Your task to perform on an android device: change timer sound Image 0: 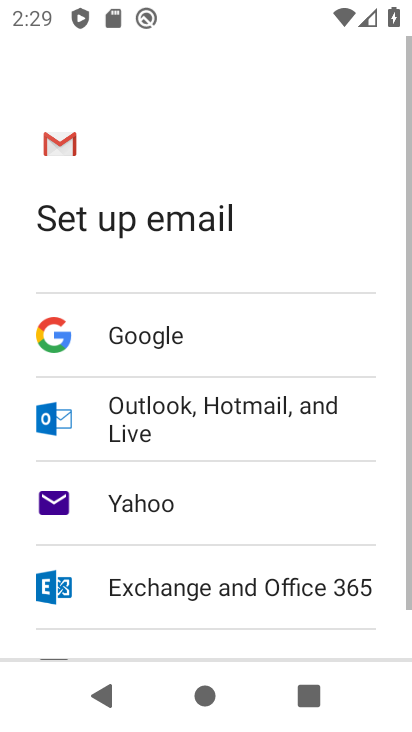
Step 0: press back button
Your task to perform on an android device: change timer sound Image 1: 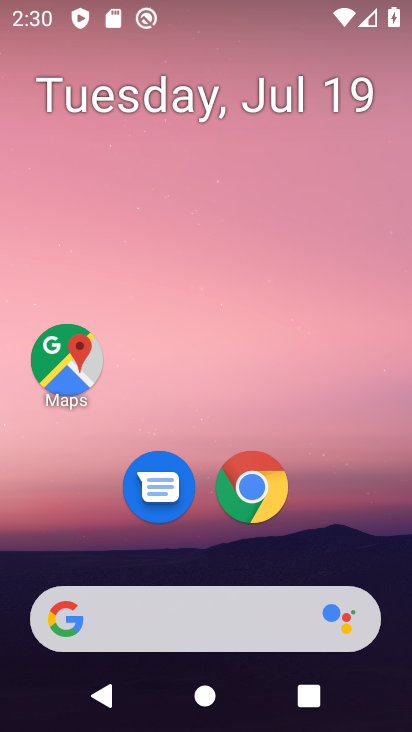
Step 1: drag from (110, 582) to (339, 46)
Your task to perform on an android device: change timer sound Image 2: 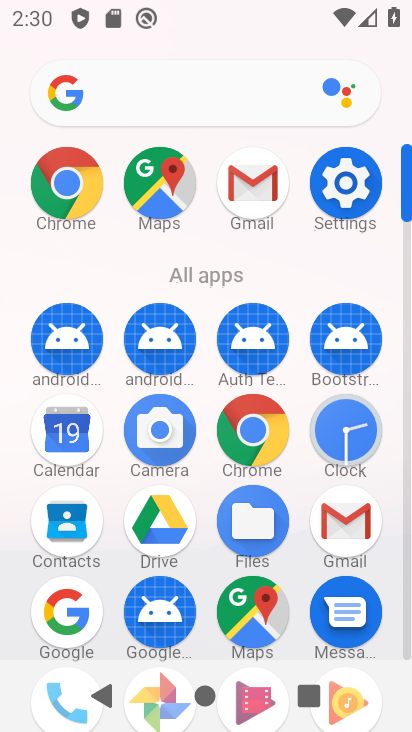
Step 2: click (359, 441)
Your task to perform on an android device: change timer sound Image 3: 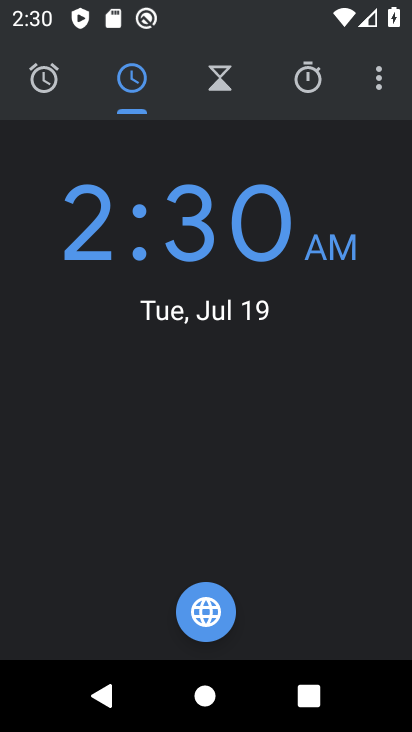
Step 3: click (379, 89)
Your task to perform on an android device: change timer sound Image 4: 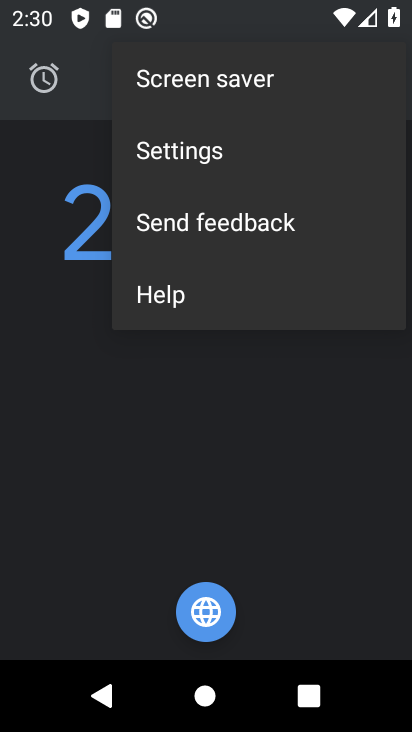
Step 4: click (235, 126)
Your task to perform on an android device: change timer sound Image 5: 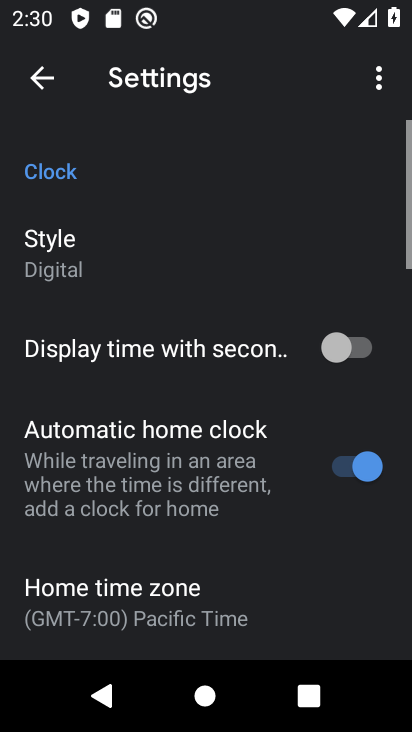
Step 5: drag from (173, 554) to (296, 92)
Your task to perform on an android device: change timer sound Image 6: 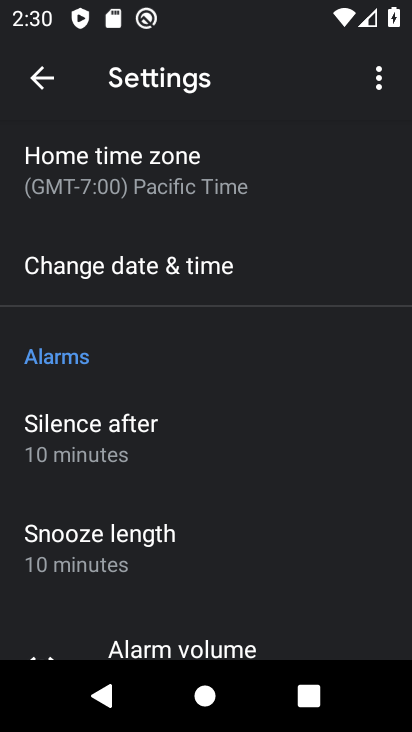
Step 6: drag from (126, 557) to (235, 176)
Your task to perform on an android device: change timer sound Image 7: 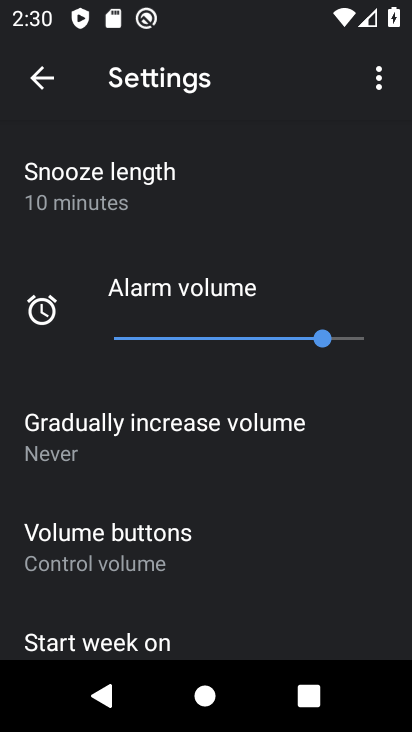
Step 7: drag from (195, 562) to (355, 63)
Your task to perform on an android device: change timer sound Image 8: 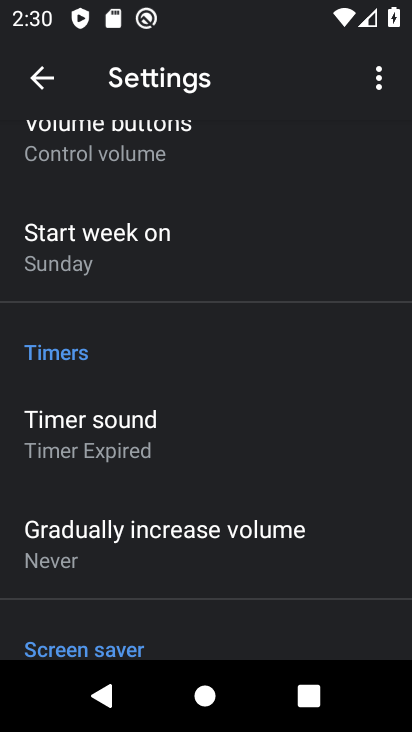
Step 8: click (106, 429)
Your task to perform on an android device: change timer sound Image 9: 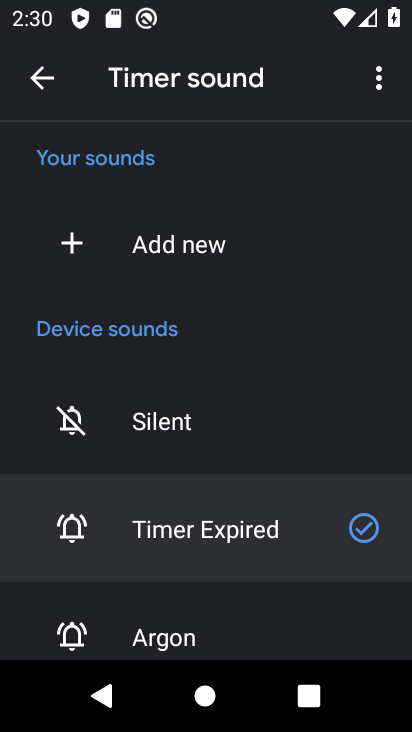
Step 9: click (161, 625)
Your task to perform on an android device: change timer sound Image 10: 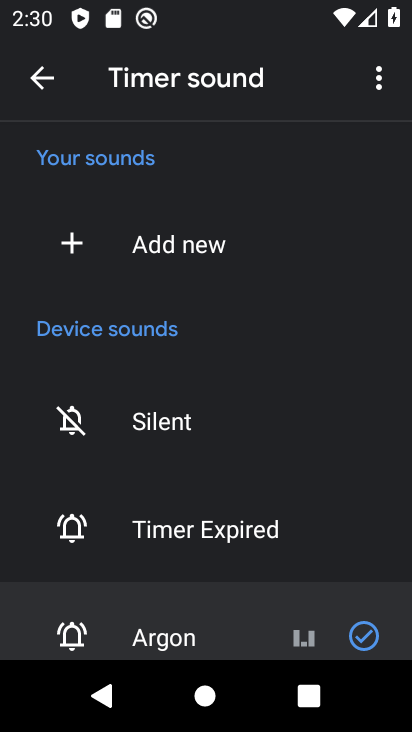
Step 10: task complete